Your task to perform on an android device: Go to eBay Image 0: 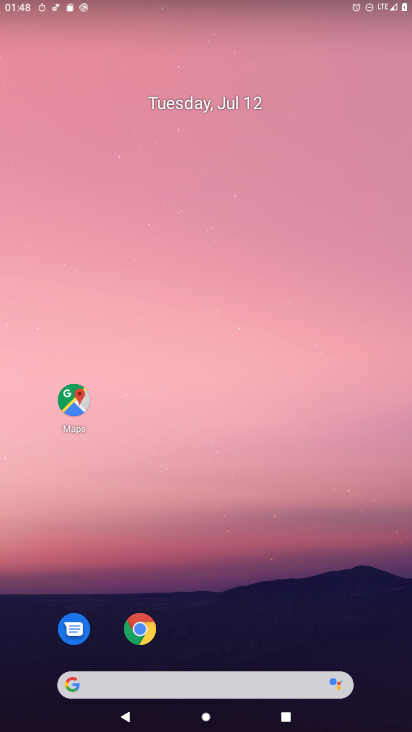
Step 0: click (128, 682)
Your task to perform on an android device: Go to eBay Image 1: 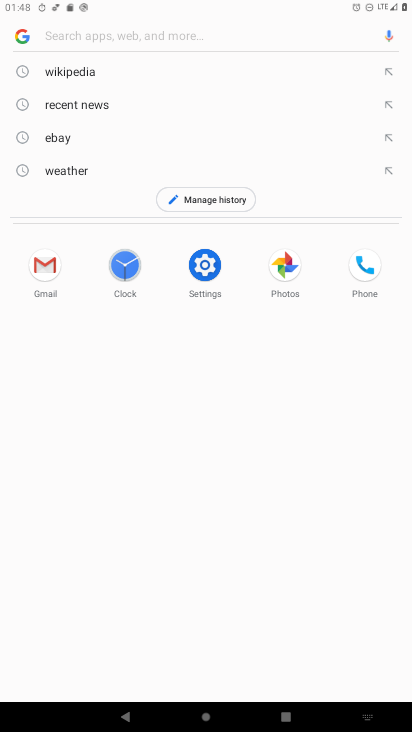
Step 1: click (47, 134)
Your task to perform on an android device: Go to eBay Image 2: 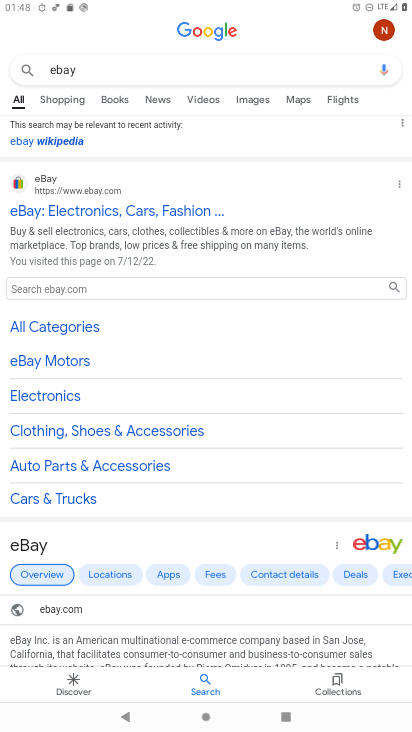
Step 2: task complete